Your task to perform on an android device: What's the weather? Image 0: 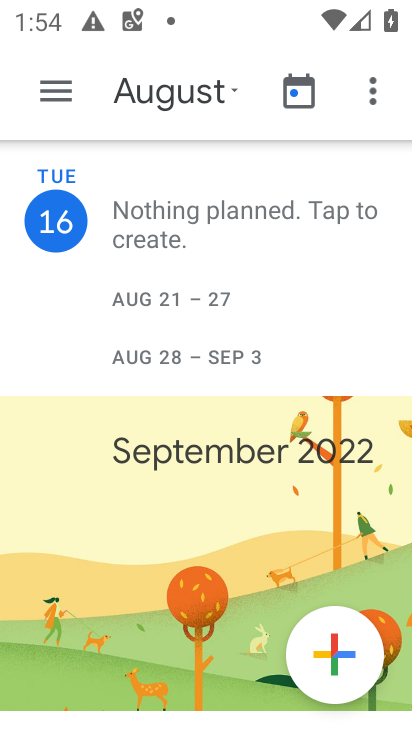
Step 0: press home button
Your task to perform on an android device: What's the weather? Image 1: 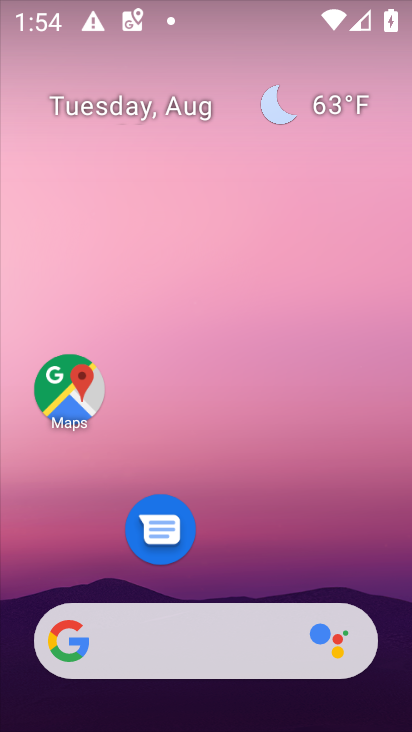
Step 1: click (229, 624)
Your task to perform on an android device: What's the weather? Image 2: 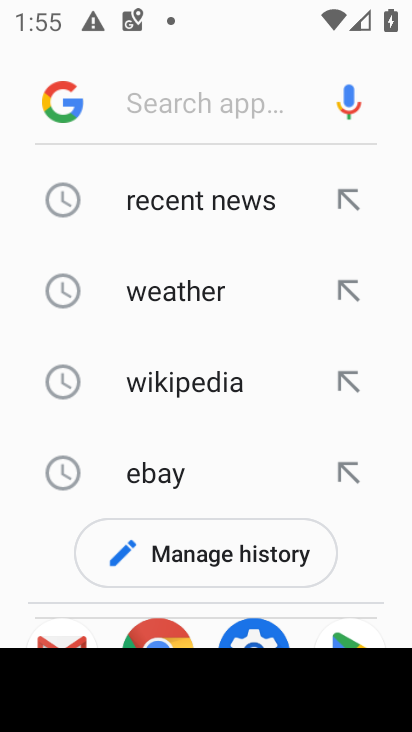
Step 2: click (187, 294)
Your task to perform on an android device: What's the weather? Image 3: 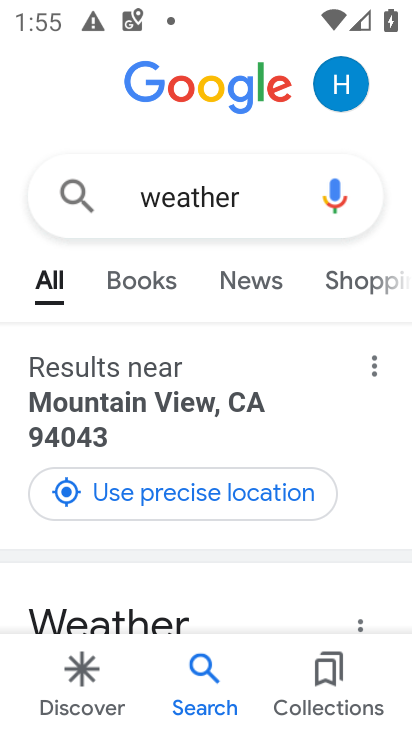
Step 3: task complete